Your task to perform on an android device: add a contact in the contacts app Image 0: 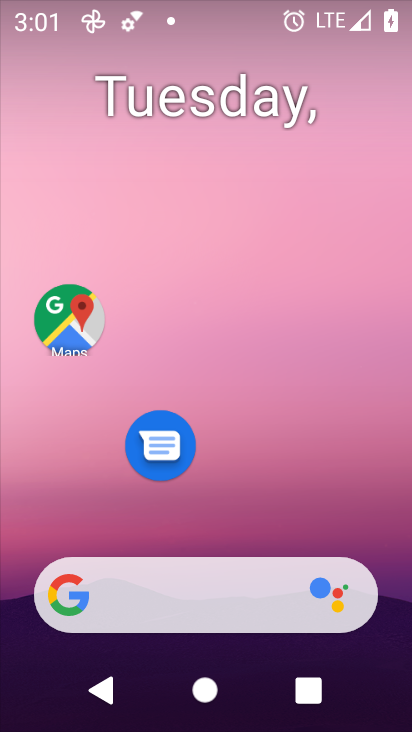
Step 0: drag from (242, 508) to (210, 36)
Your task to perform on an android device: add a contact in the contacts app Image 1: 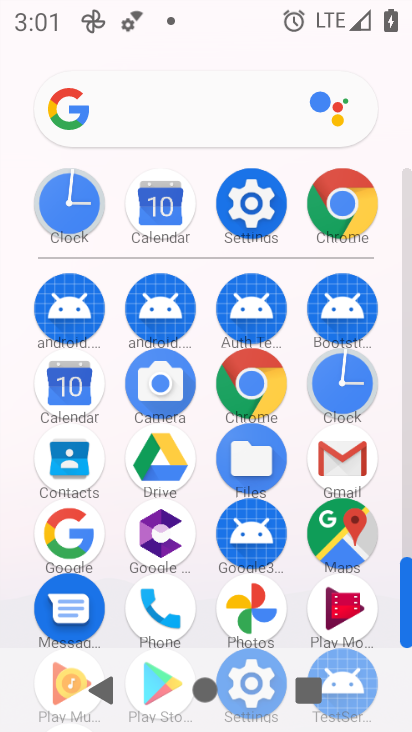
Step 1: click (63, 467)
Your task to perform on an android device: add a contact in the contacts app Image 2: 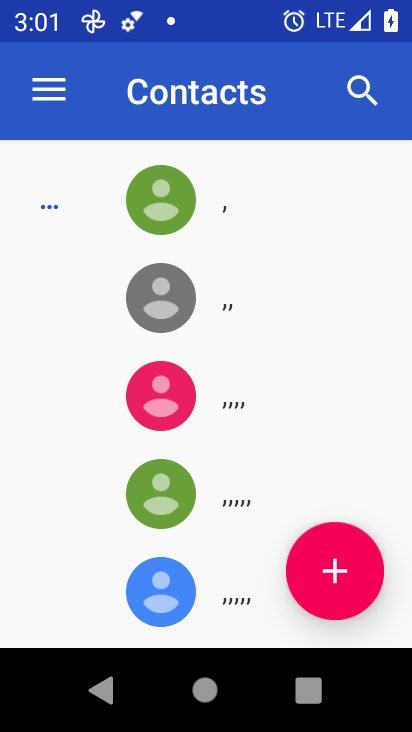
Step 2: click (324, 578)
Your task to perform on an android device: add a contact in the contacts app Image 3: 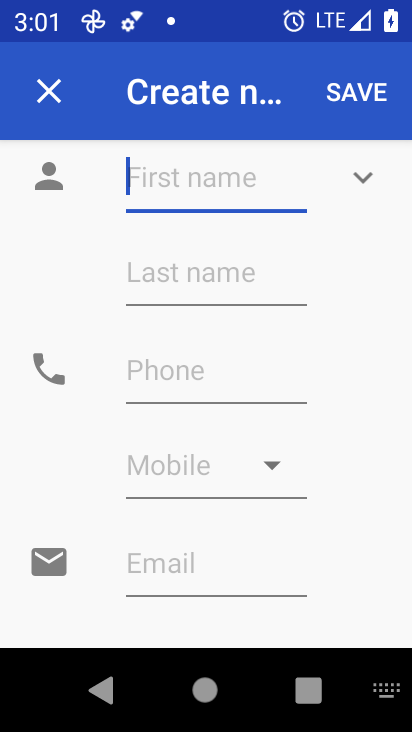
Step 3: click (170, 195)
Your task to perform on an android device: add a contact in the contacts app Image 4: 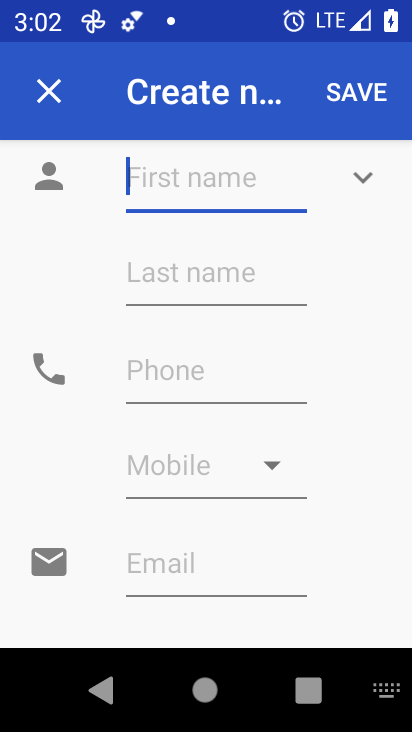
Step 4: type "hfgh"
Your task to perform on an android device: add a contact in the contacts app Image 5: 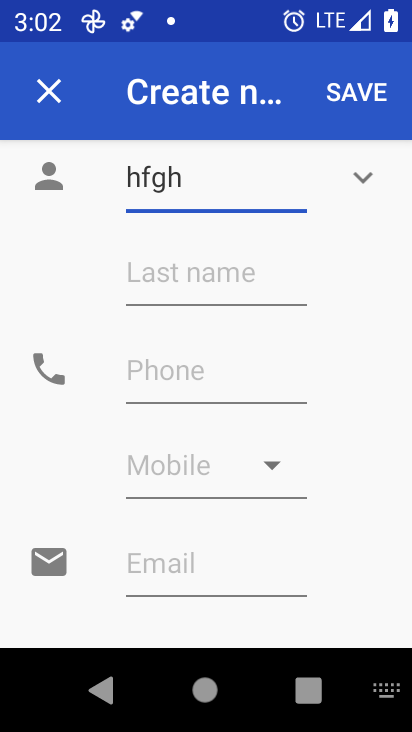
Step 5: click (182, 382)
Your task to perform on an android device: add a contact in the contacts app Image 6: 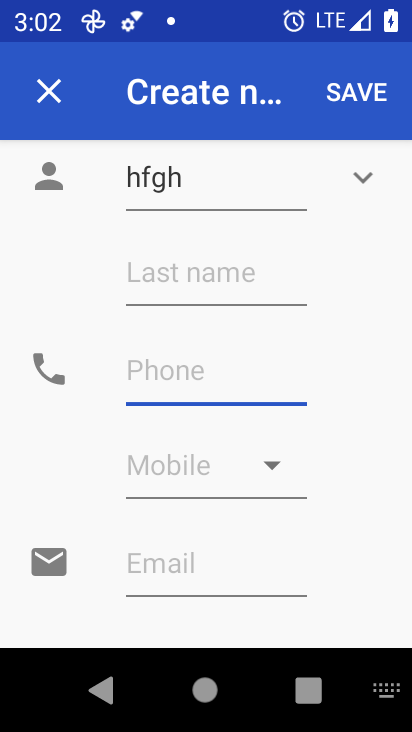
Step 6: type "345678"
Your task to perform on an android device: add a contact in the contacts app Image 7: 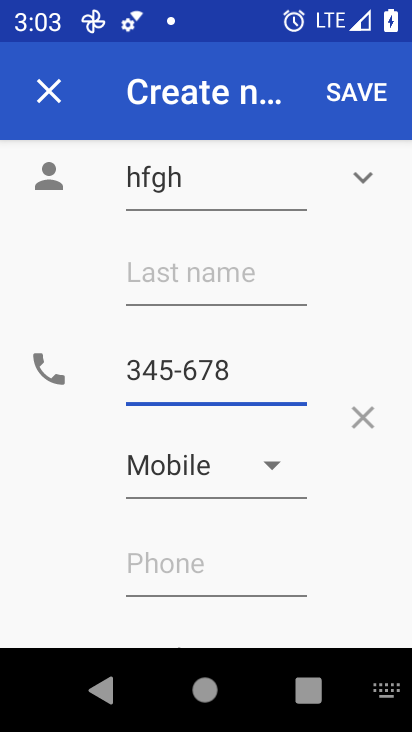
Step 7: click (348, 87)
Your task to perform on an android device: add a contact in the contacts app Image 8: 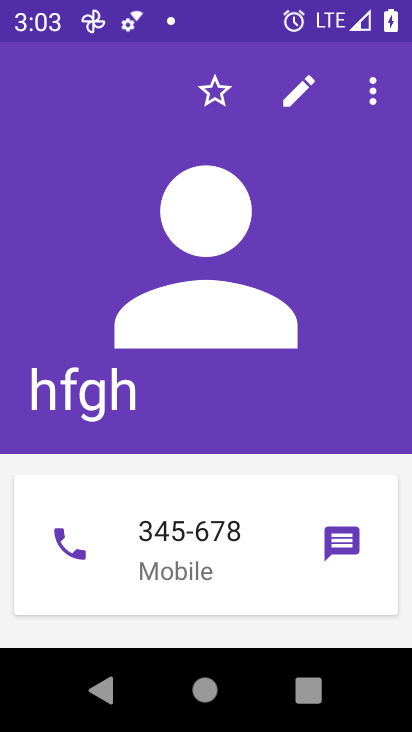
Step 8: task complete